Your task to perform on an android device: turn off airplane mode Image 0: 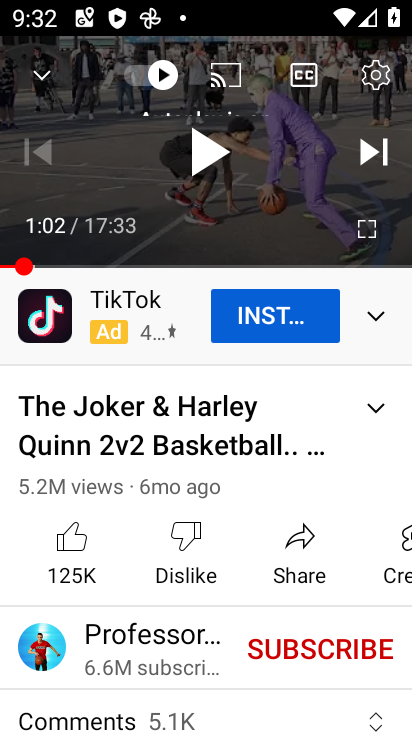
Step 0: press home button
Your task to perform on an android device: turn off airplane mode Image 1: 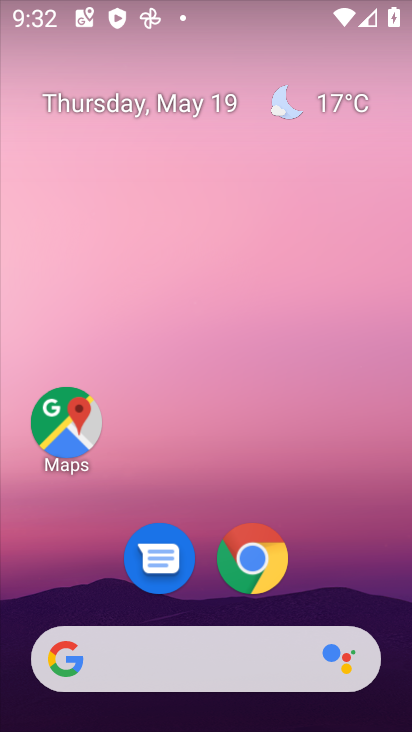
Step 1: drag from (196, 726) to (161, 80)
Your task to perform on an android device: turn off airplane mode Image 2: 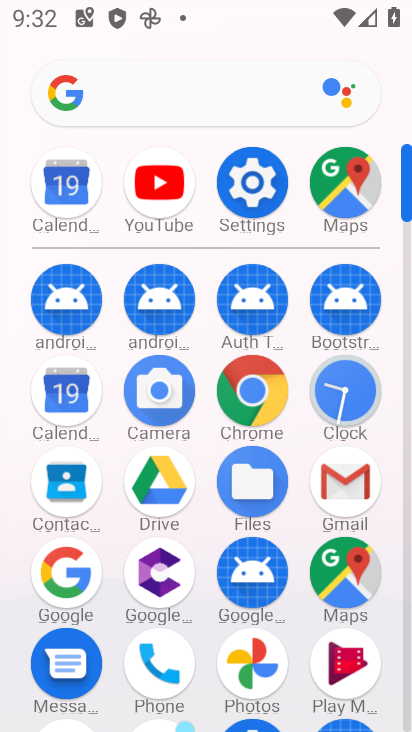
Step 2: click (260, 185)
Your task to perform on an android device: turn off airplane mode Image 3: 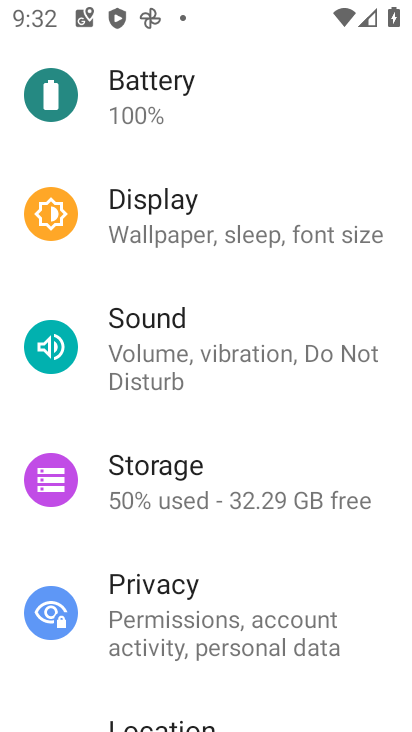
Step 3: drag from (245, 166) to (242, 496)
Your task to perform on an android device: turn off airplane mode Image 4: 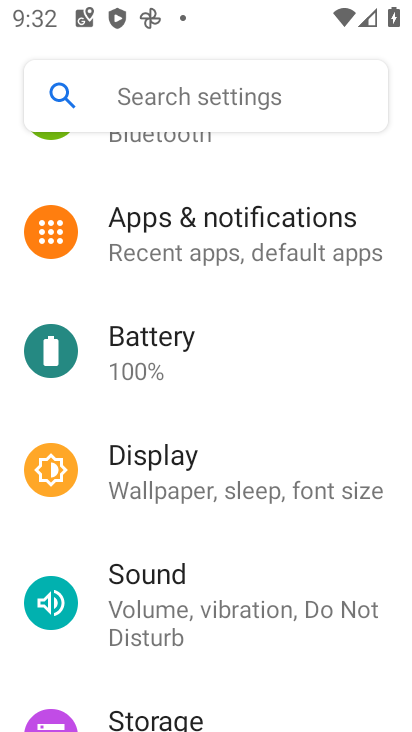
Step 4: drag from (276, 196) to (296, 660)
Your task to perform on an android device: turn off airplane mode Image 5: 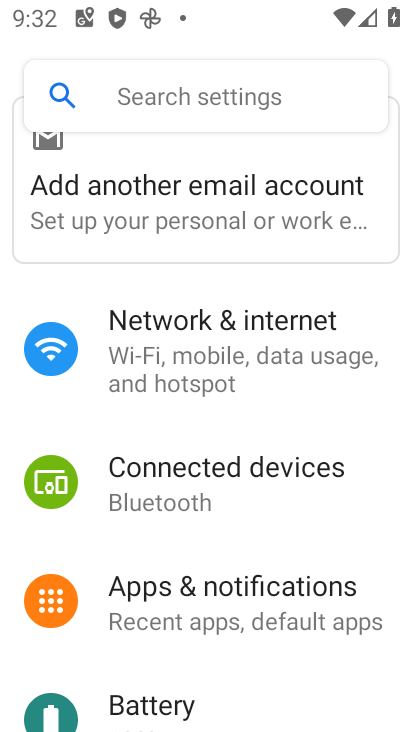
Step 5: click (236, 343)
Your task to perform on an android device: turn off airplane mode Image 6: 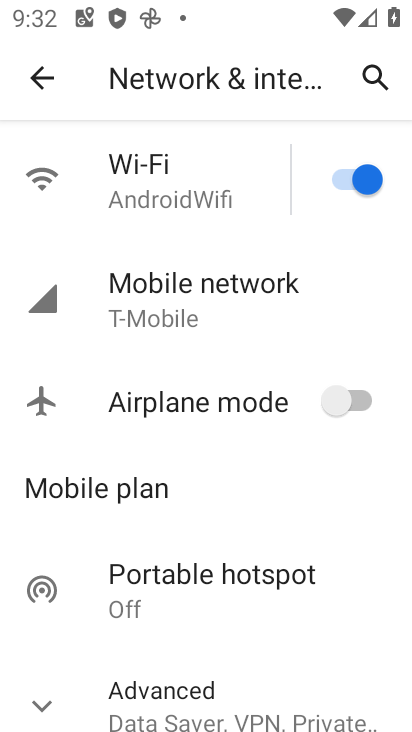
Step 6: task complete